Your task to perform on an android device: open app "Facebook" (install if not already installed) Image 0: 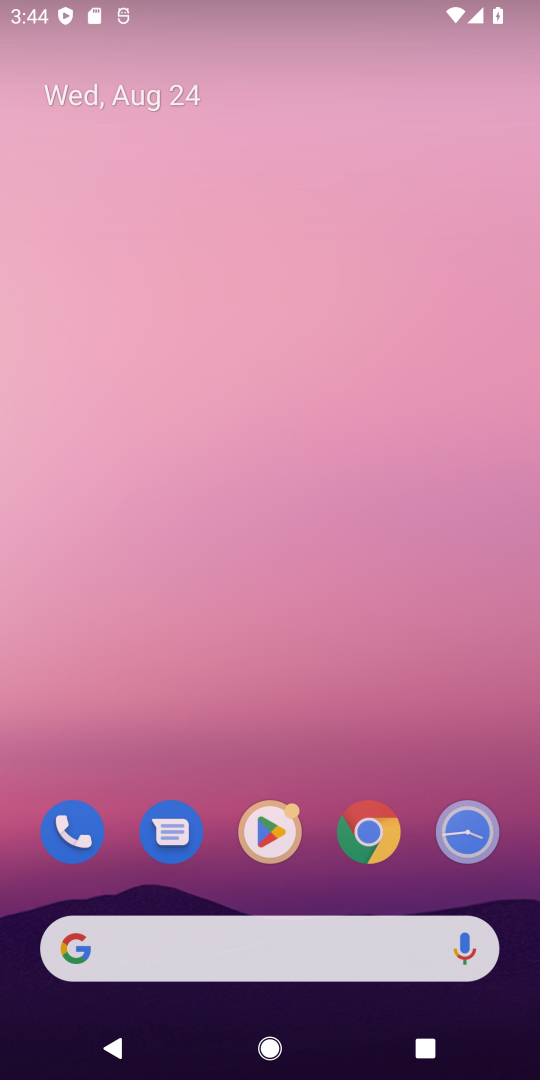
Step 0: press home button
Your task to perform on an android device: open app "Facebook" (install if not already installed) Image 1: 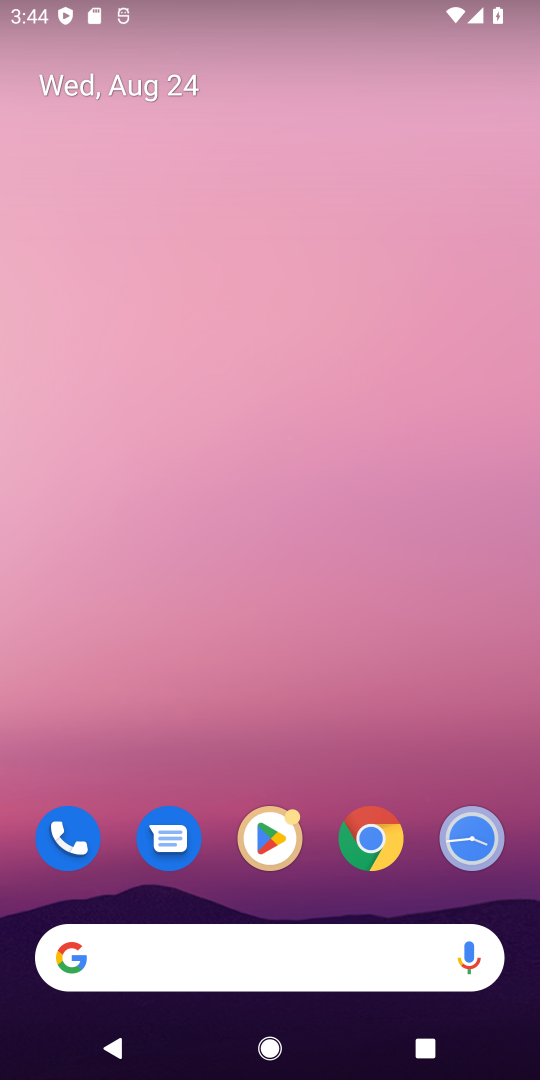
Step 1: click (266, 836)
Your task to perform on an android device: open app "Facebook" (install if not already installed) Image 2: 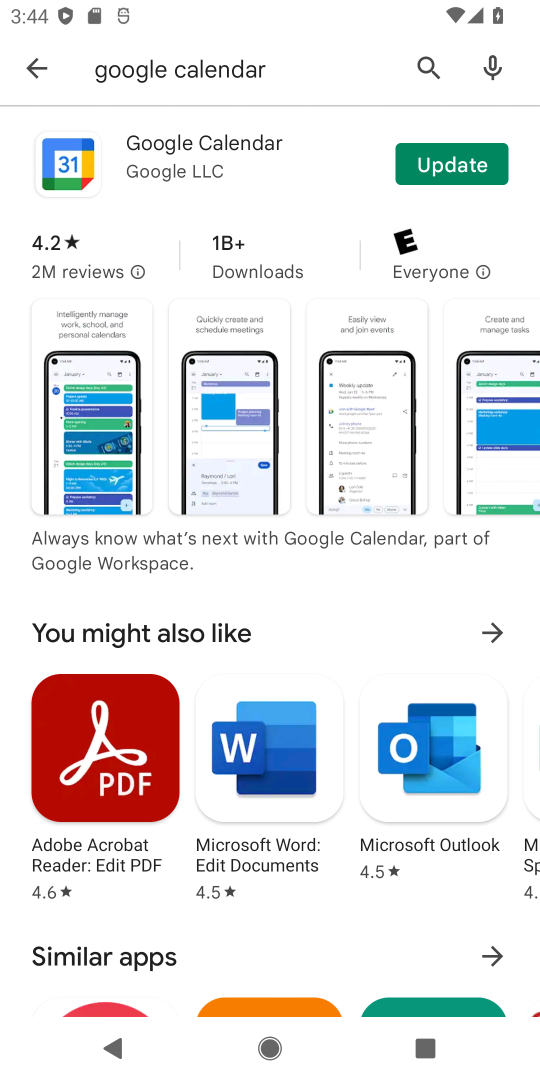
Step 2: click (419, 62)
Your task to perform on an android device: open app "Facebook" (install if not already installed) Image 3: 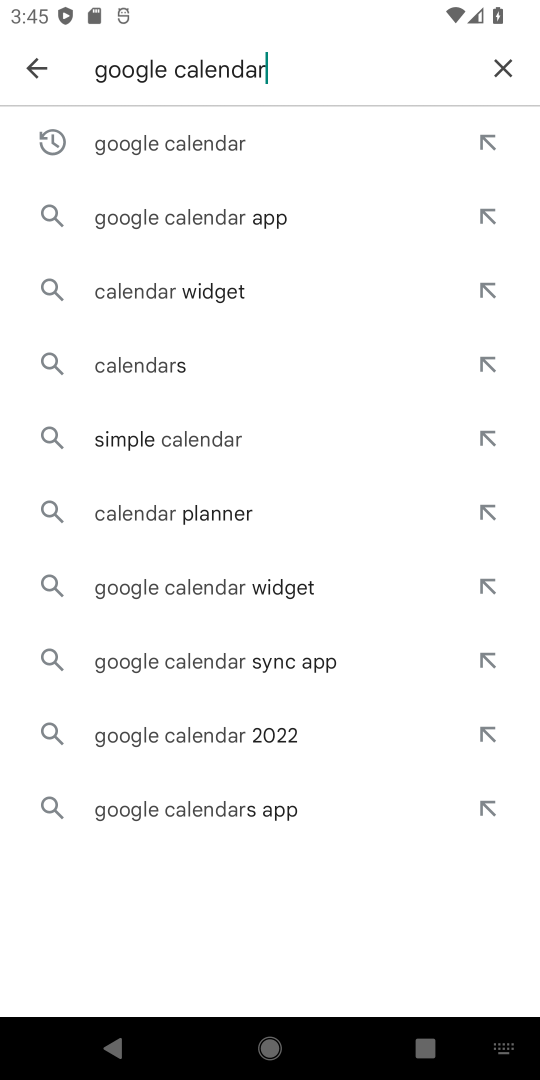
Step 3: click (505, 79)
Your task to perform on an android device: open app "Facebook" (install if not already installed) Image 4: 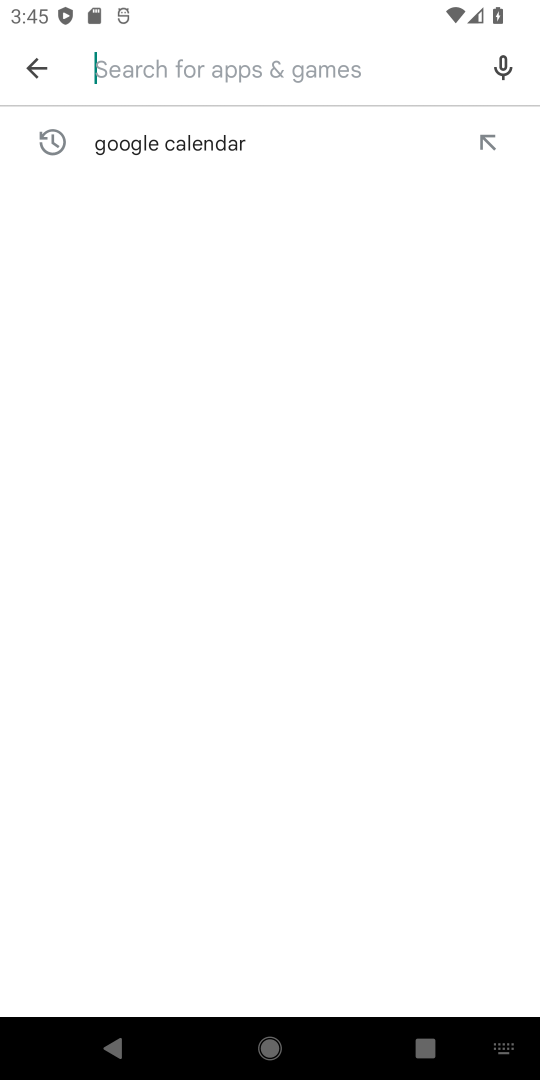
Step 4: type "Facebook"
Your task to perform on an android device: open app "Facebook" (install if not already installed) Image 5: 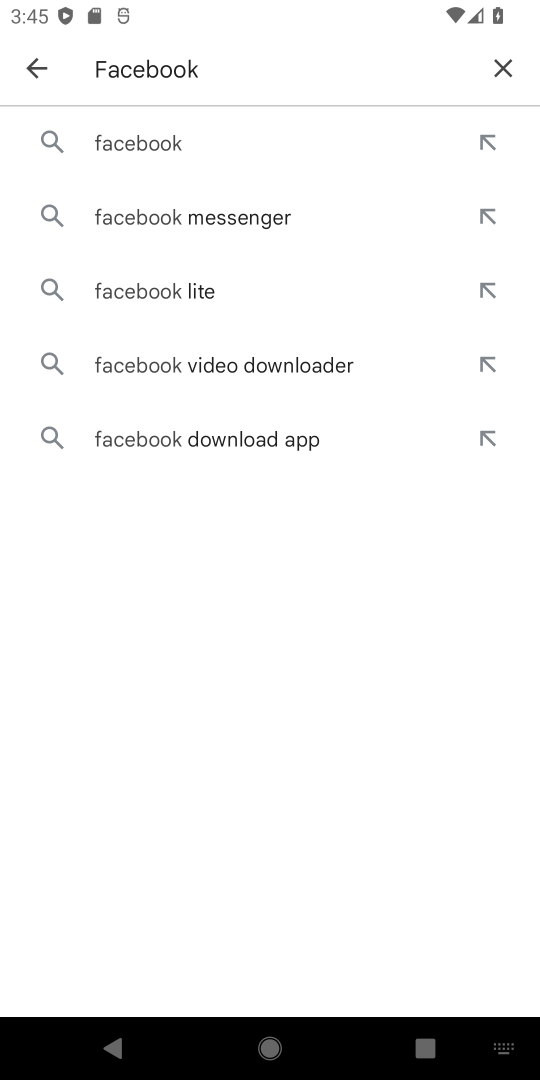
Step 5: click (204, 134)
Your task to perform on an android device: open app "Facebook" (install if not already installed) Image 6: 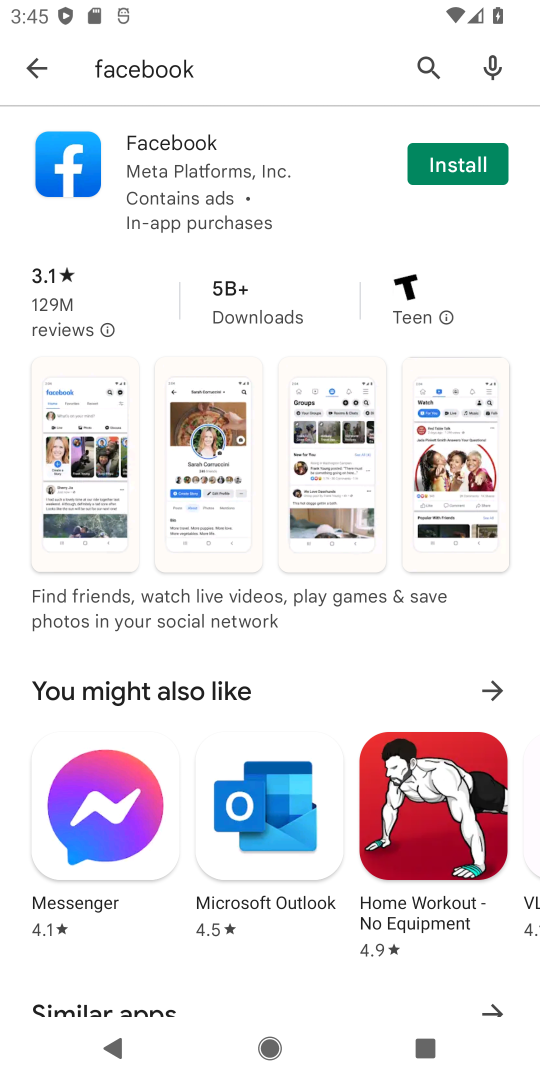
Step 6: click (457, 158)
Your task to perform on an android device: open app "Facebook" (install if not already installed) Image 7: 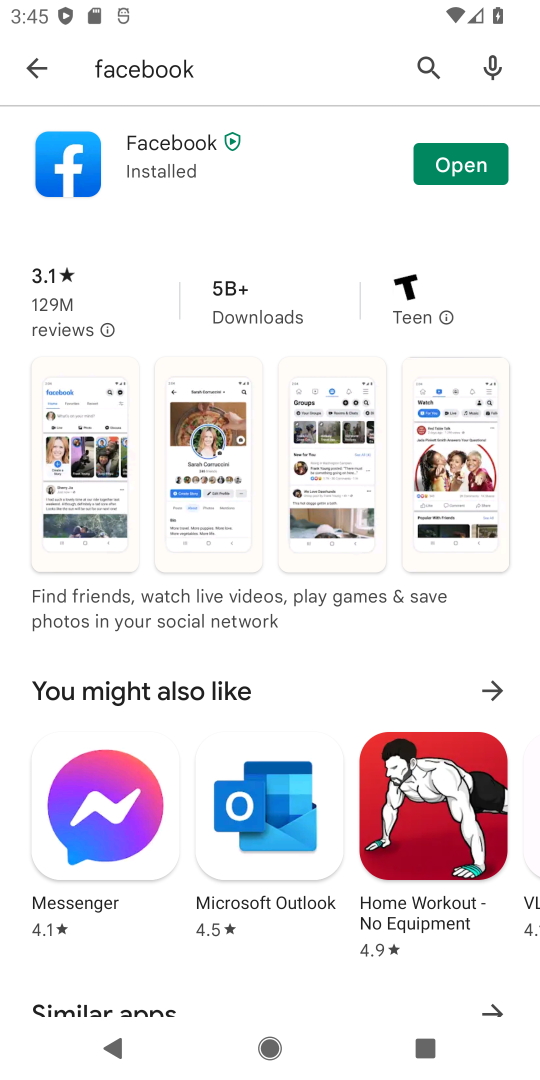
Step 7: click (461, 176)
Your task to perform on an android device: open app "Facebook" (install if not already installed) Image 8: 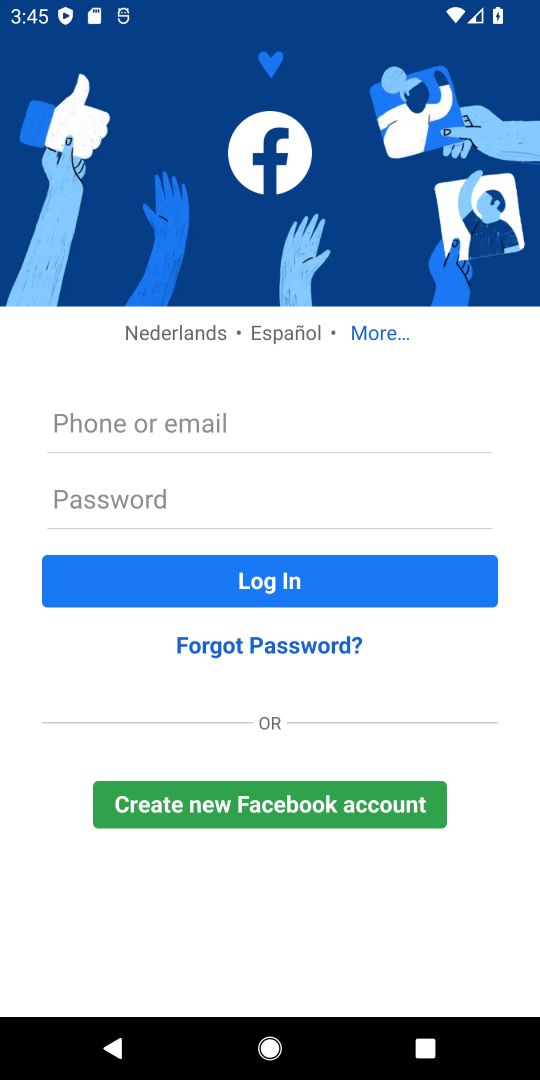
Step 8: task complete